Your task to perform on an android device: turn off priority inbox in the gmail app Image 0: 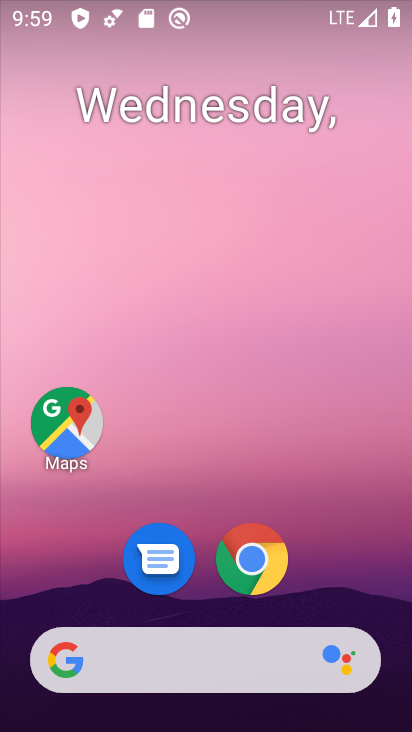
Step 0: drag from (320, 568) to (255, 38)
Your task to perform on an android device: turn off priority inbox in the gmail app Image 1: 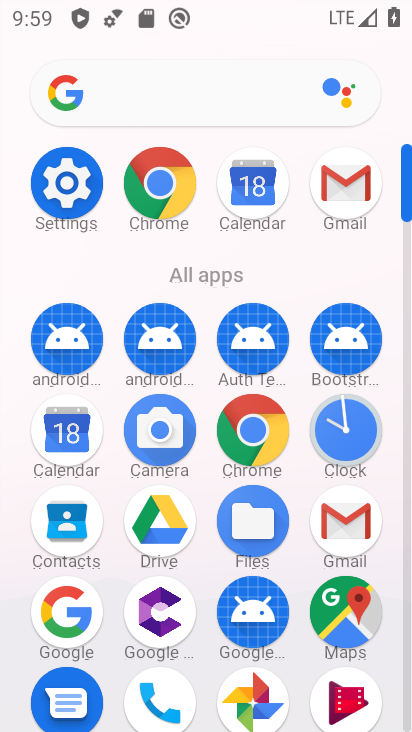
Step 1: click (328, 202)
Your task to perform on an android device: turn off priority inbox in the gmail app Image 2: 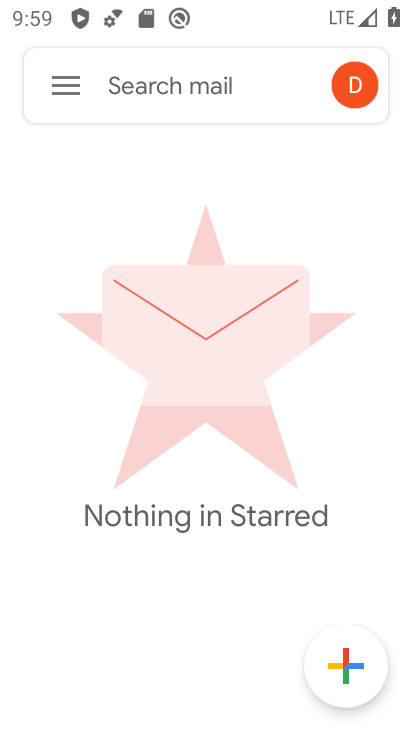
Step 2: click (60, 118)
Your task to perform on an android device: turn off priority inbox in the gmail app Image 3: 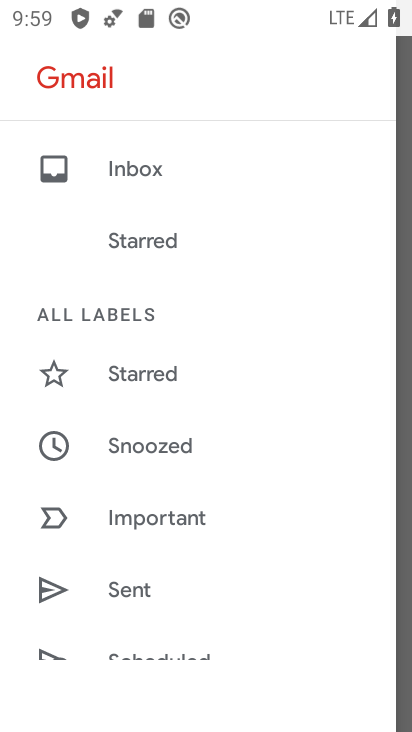
Step 3: drag from (176, 606) to (241, 217)
Your task to perform on an android device: turn off priority inbox in the gmail app Image 4: 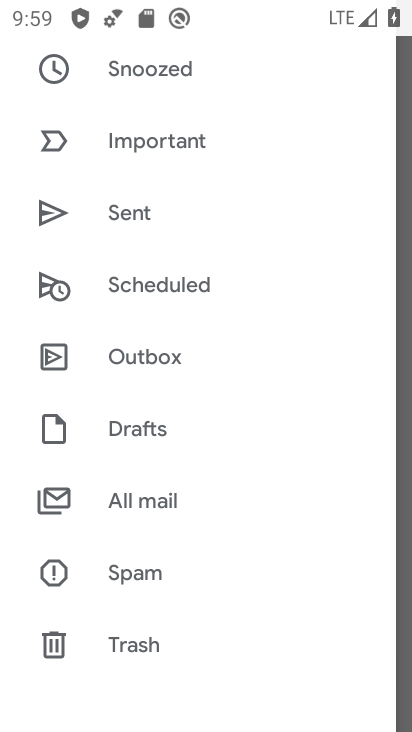
Step 4: drag from (196, 637) to (258, 266)
Your task to perform on an android device: turn off priority inbox in the gmail app Image 5: 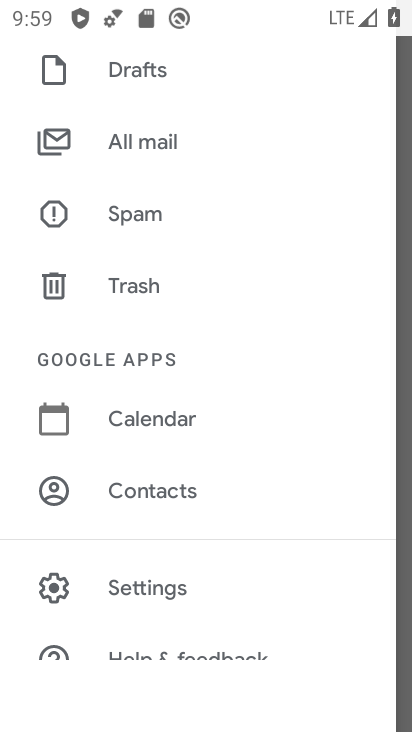
Step 5: click (112, 598)
Your task to perform on an android device: turn off priority inbox in the gmail app Image 6: 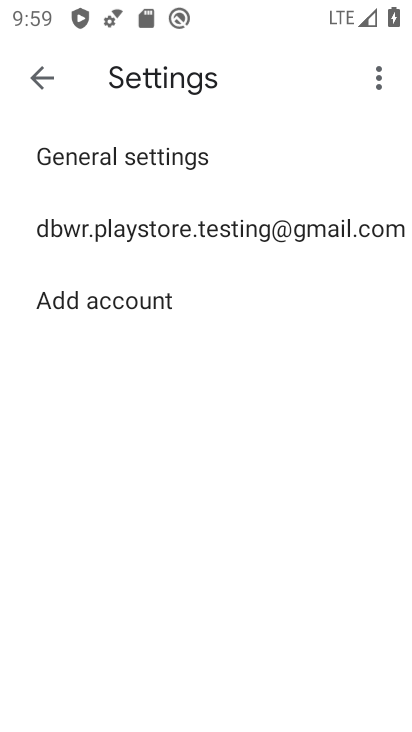
Step 6: click (84, 228)
Your task to perform on an android device: turn off priority inbox in the gmail app Image 7: 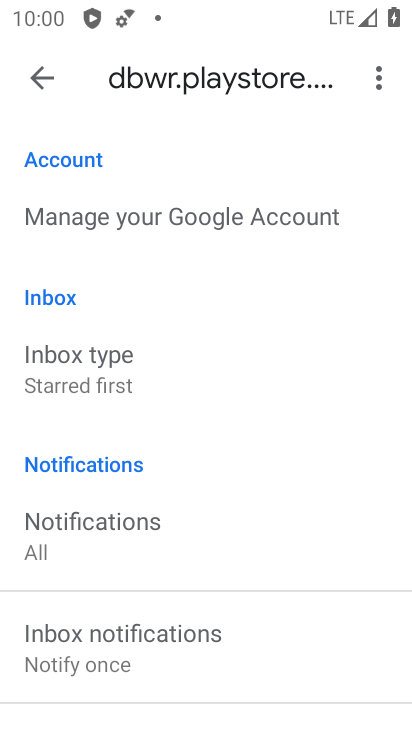
Step 7: click (84, 380)
Your task to perform on an android device: turn off priority inbox in the gmail app Image 8: 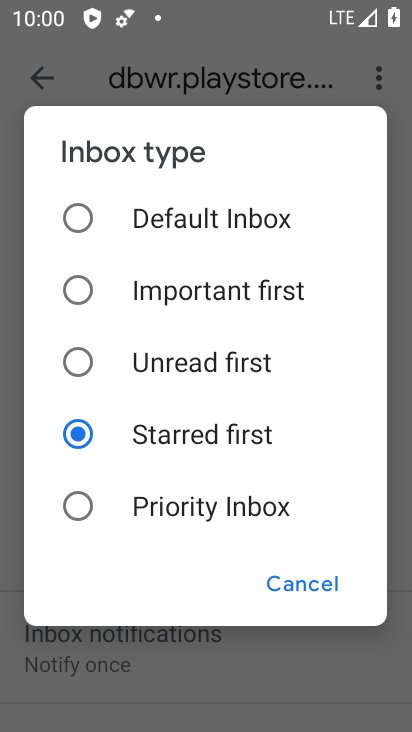
Step 8: task complete